Your task to perform on an android device: change alarm snooze length Image 0: 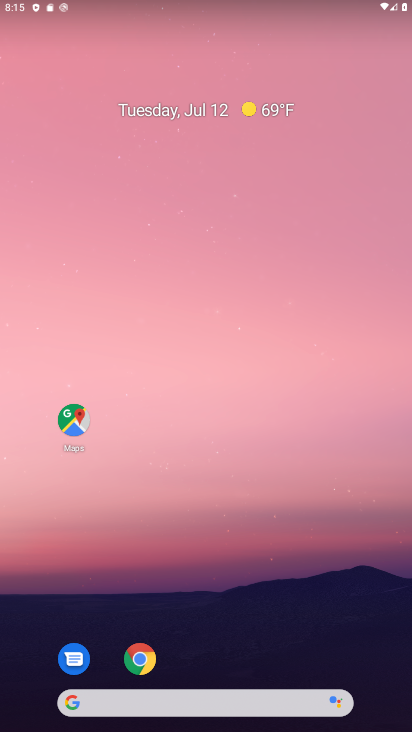
Step 0: drag from (228, 720) to (216, 331)
Your task to perform on an android device: change alarm snooze length Image 1: 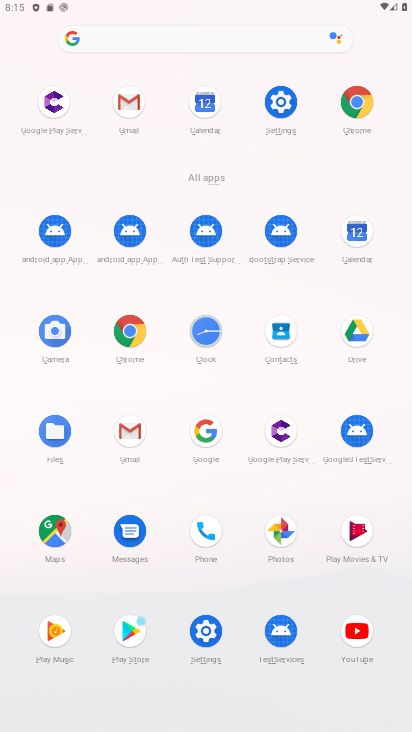
Step 1: click (205, 329)
Your task to perform on an android device: change alarm snooze length Image 2: 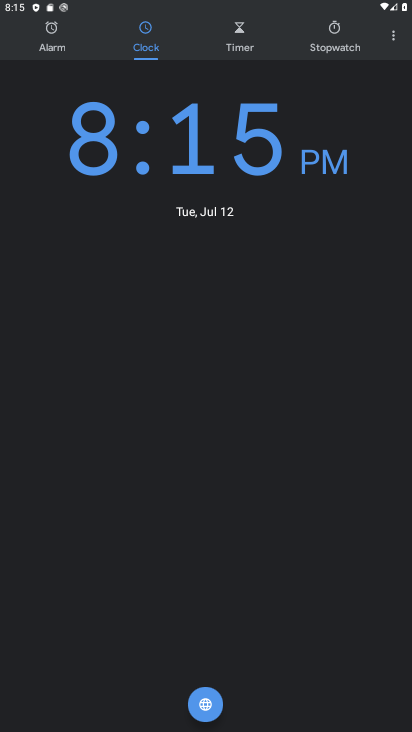
Step 2: click (394, 43)
Your task to perform on an android device: change alarm snooze length Image 3: 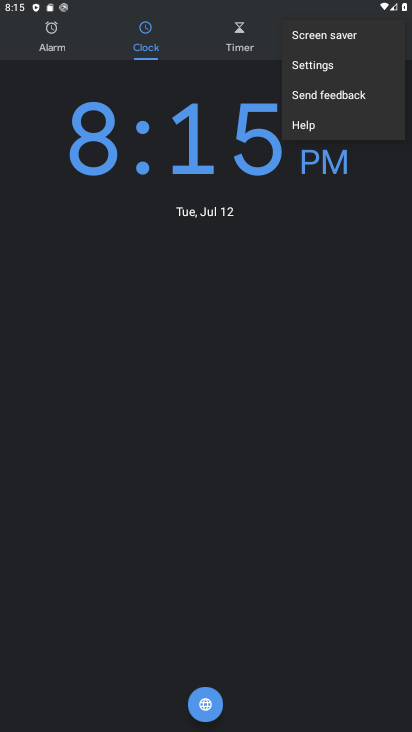
Step 3: click (324, 66)
Your task to perform on an android device: change alarm snooze length Image 4: 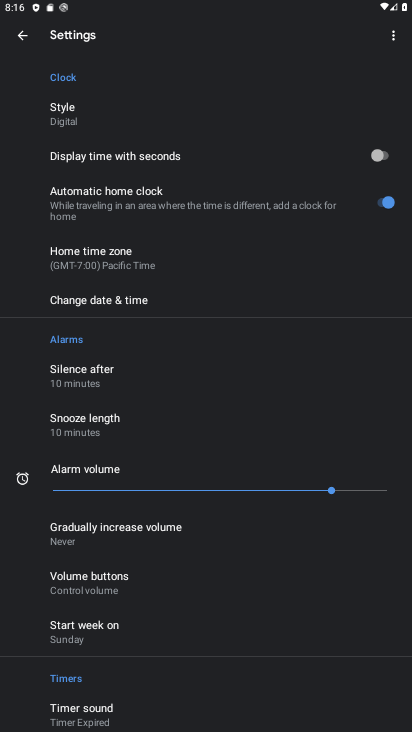
Step 4: drag from (178, 714) to (178, 433)
Your task to perform on an android device: change alarm snooze length Image 5: 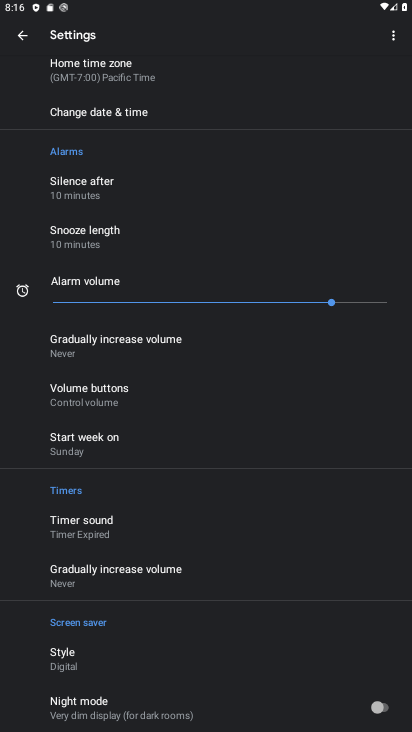
Step 5: click (87, 230)
Your task to perform on an android device: change alarm snooze length Image 6: 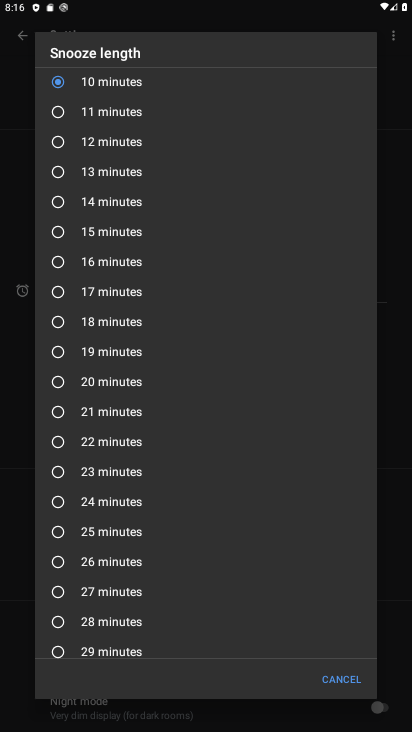
Step 6: click (59, 499)
Your task to perform on an android device: change alarm snooze length Image 7: 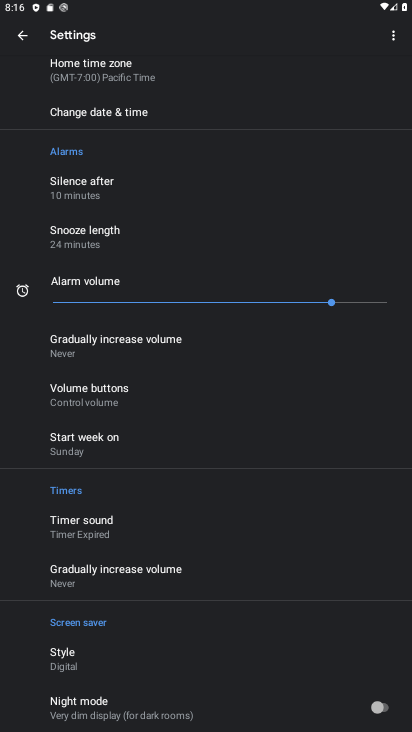
Step 7: task complete